Your task to perform on an android device: turn vacation reply on in the gmail app Image 0: 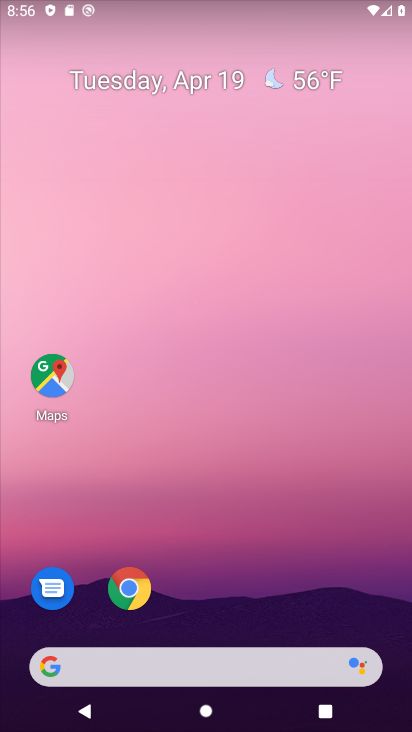
Step 0: drag from (220, 601) to (222, 71)
Your task to perform on an android device: turn vacation reply on in the gmail app Image 1: 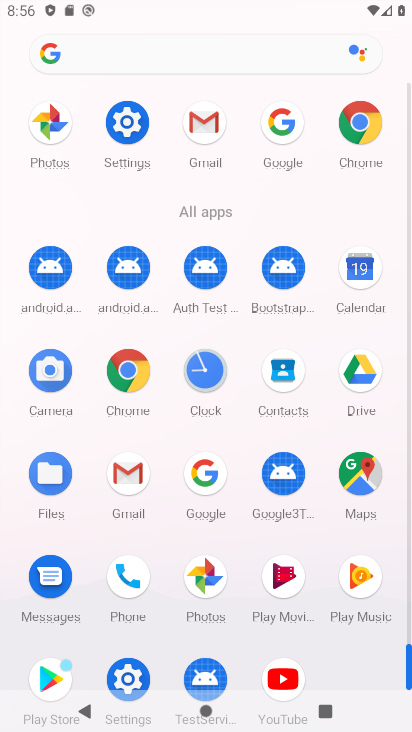
Step 1: click (206, 124)
Your task to perform on an android device: turn vacation reply on in the gmail app Image 2: 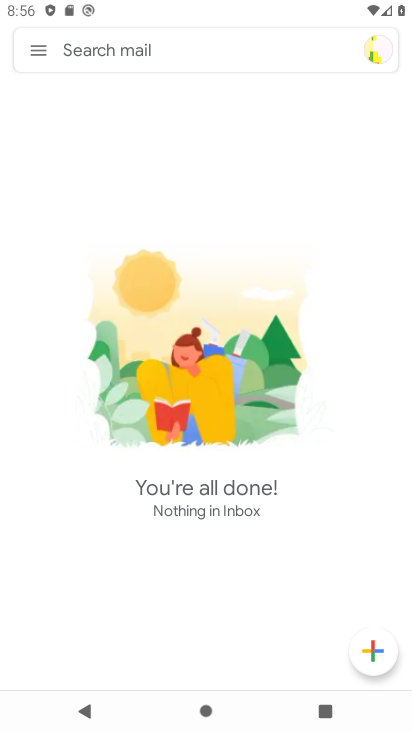
Step 2: click (38, 48)
Your task to perform on an android device: turn vacation reply on in the gmail app Image 3: 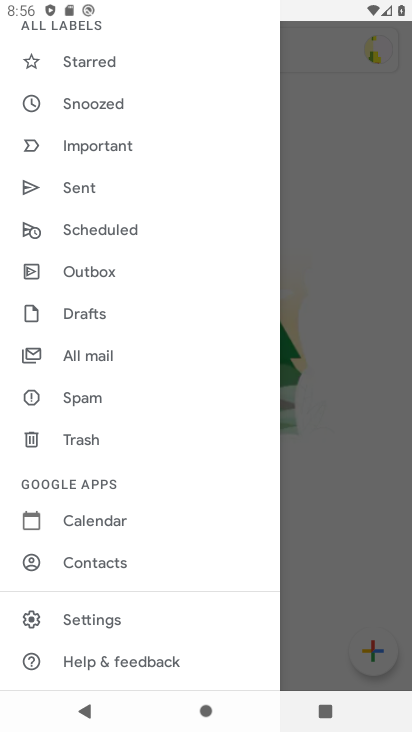
Step 3: click (90, 617)
Your task to perform on an android device: turn vacation reply on in the gmail app Image 4: 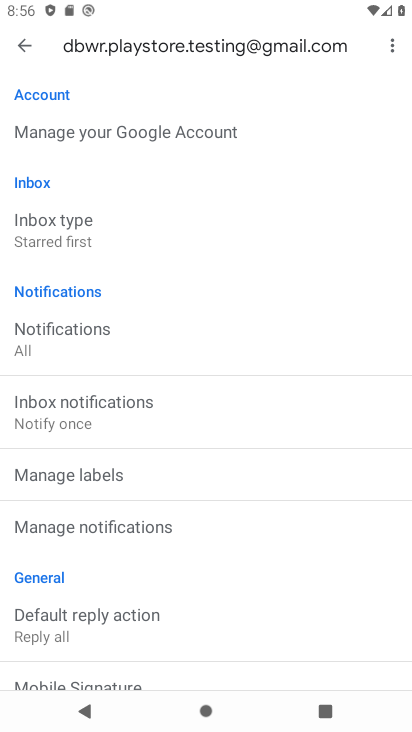
Step 4: drag from (194, 553) to (218, 320)
Your task to perform on an android device: turn vacation reply on in the gmail app Image 5: 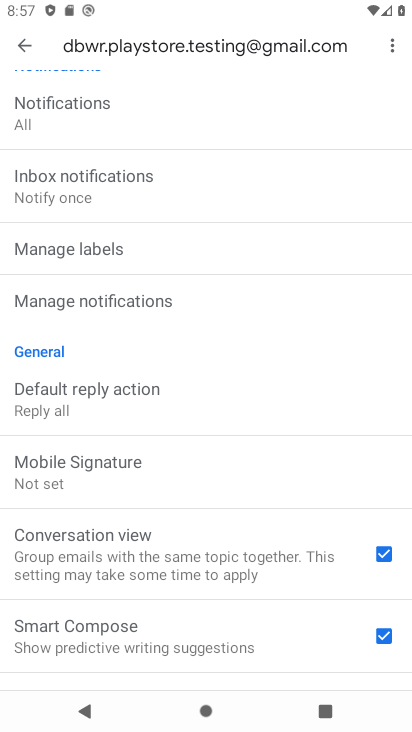
Step 5: drag from (212, 493) to (274, 357)
Your task to perform on an android device: turn vacation reply on in the gmail app Image 6: 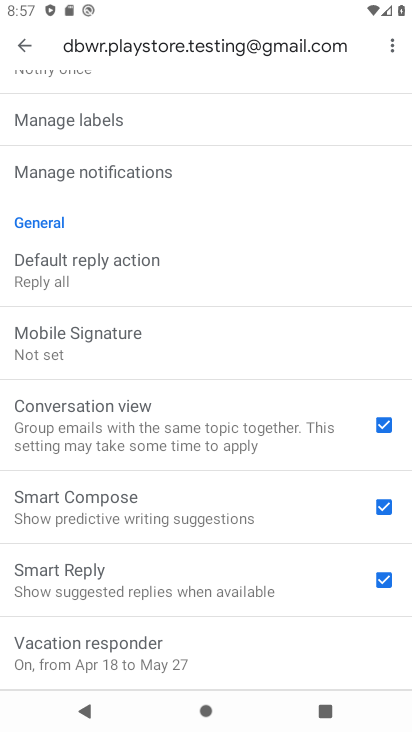
Step 6: drag from (192, 630) to (232, 525)
Your task to perform on an android device: turn vacation reply on in the gmail app Image 7: 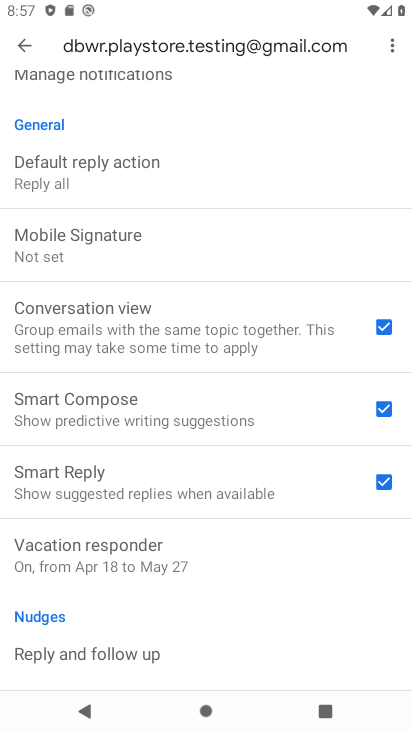
Step 7: click (155, 555)
Your task to perform on an android device: turn vacation reply on in the gmail app Image 8: 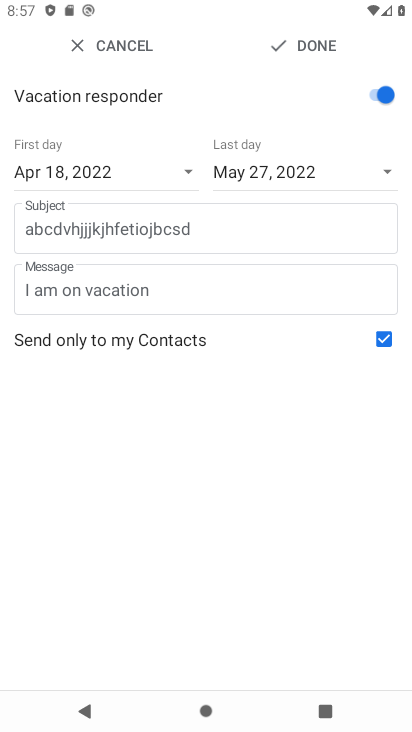
Step 8: task complete